Your task to perform on an android device: empty trash in the gmail app Image 0: 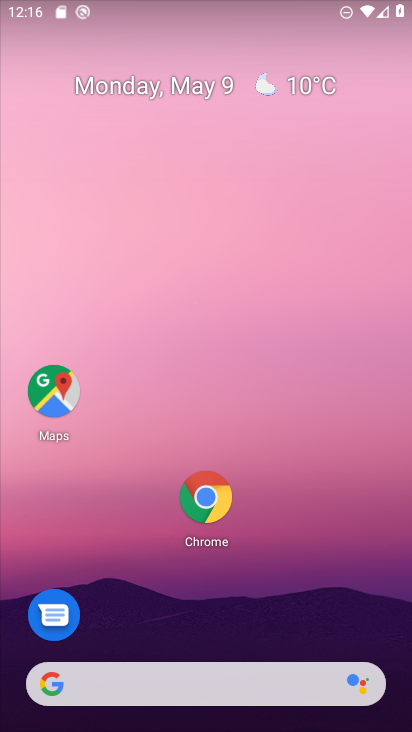
Step 0: drag from (310, 547) to (218, 59)
Your task to perform on an android device: empty trash in the gmail app Image 1: 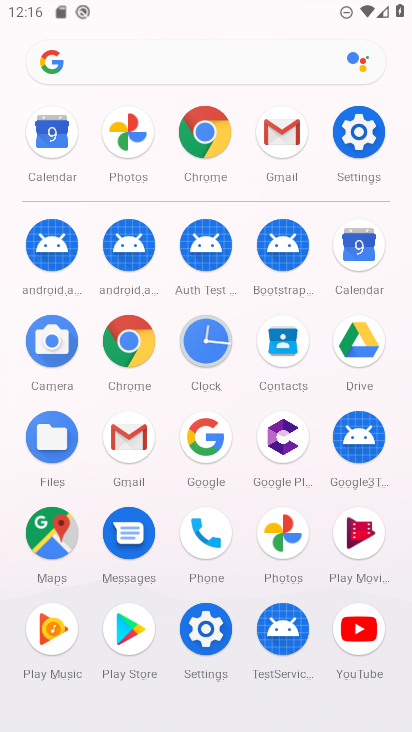
Step 1: click (277, 123)
Your task to perform on an android device: empty trash in the gmail app Image 2: 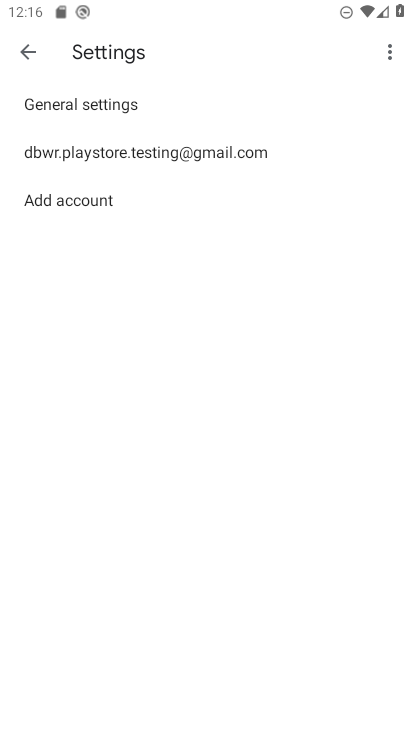
Step 2: click (31, 62)
Your task to perform on an android device: empty trash in the gmail app Image 3: 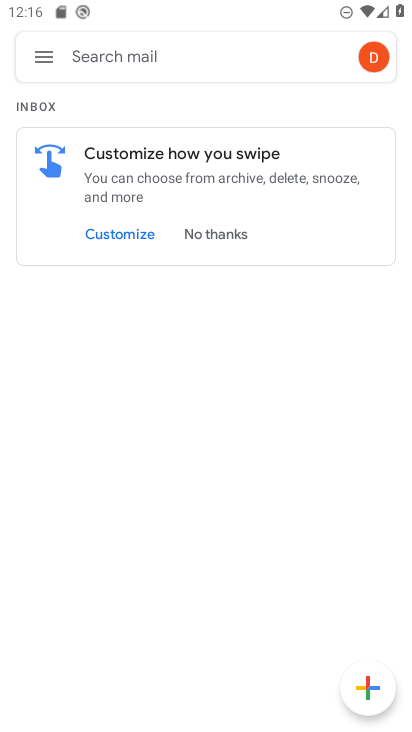
Step 3: click (25, 60)
Your task to perform on an android device: empty trash in the gmail app Image 4: 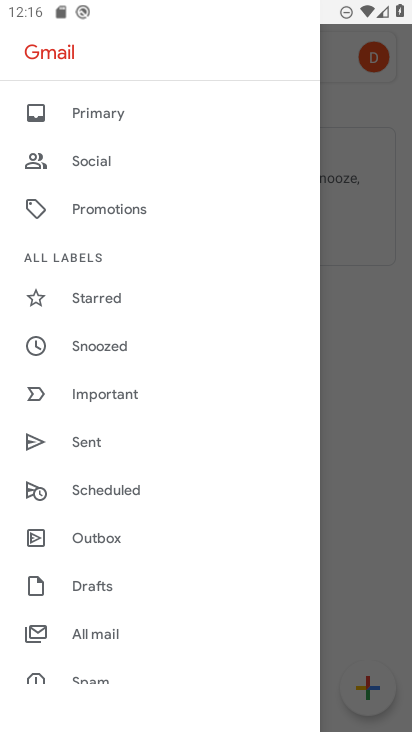
Step 4: drag from (164, 620) to (197, 227)
Your task to perform on an android device: empty trash in the gmail app Image 5: 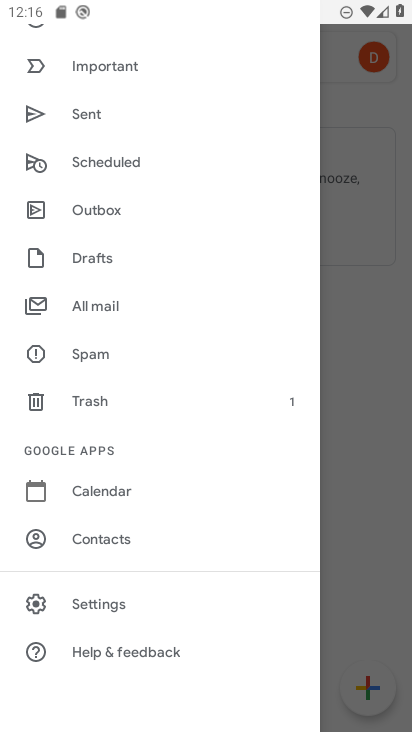
Step 5: click (72, 391)
Your task to perform on an android device: empty trash in the gmail app Image 6: 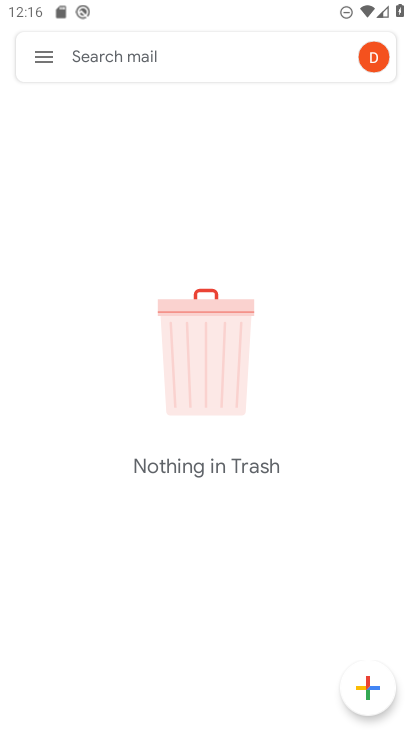
Step 6: task complete